Your task to perform on an android device: open sync settings in chrome Image 0: 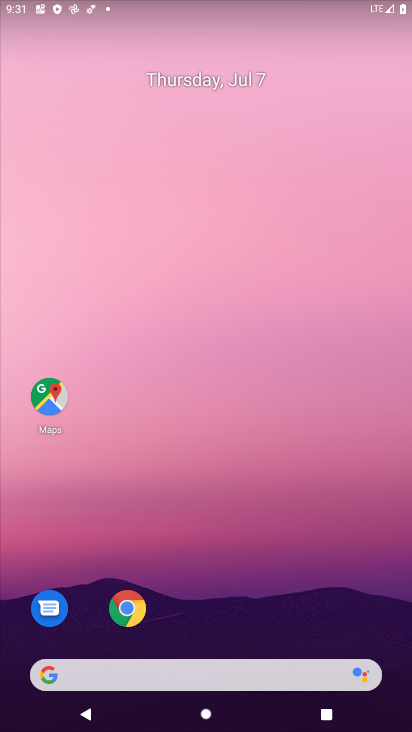
Step 0: drag from (220, 603) to (239, 208)
Your task to perform on an android device: open sync settings in chrome Image 1: 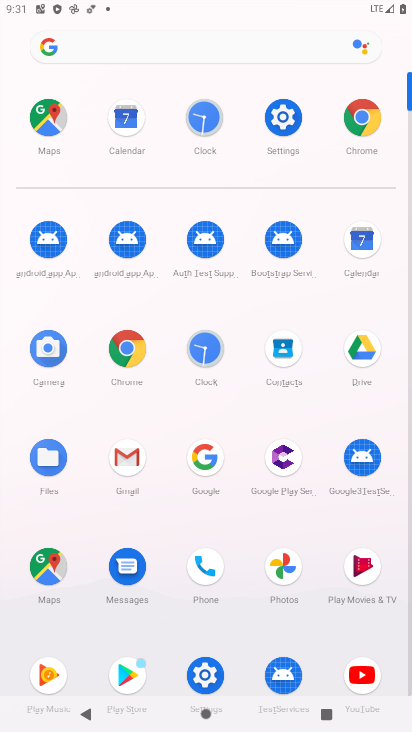
Step 1: click (126, 343)
Your task to perform on an android device: open sync settings in chrome Image 2: 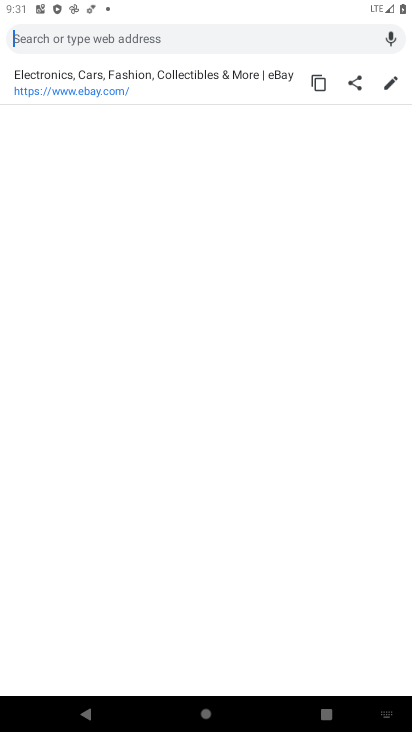
Step 2: press back button
Your task to perform on an android device: open sync settings in chrome Image 3: 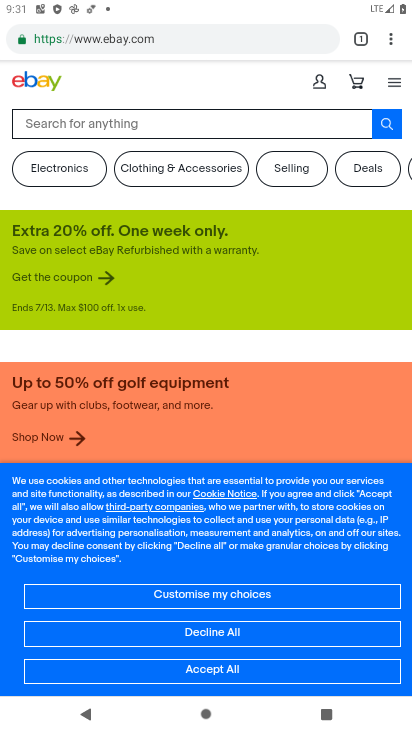
Step 3: click (385, 36)
Your task to perform on an android device: open sync settings in chrome Image 4: 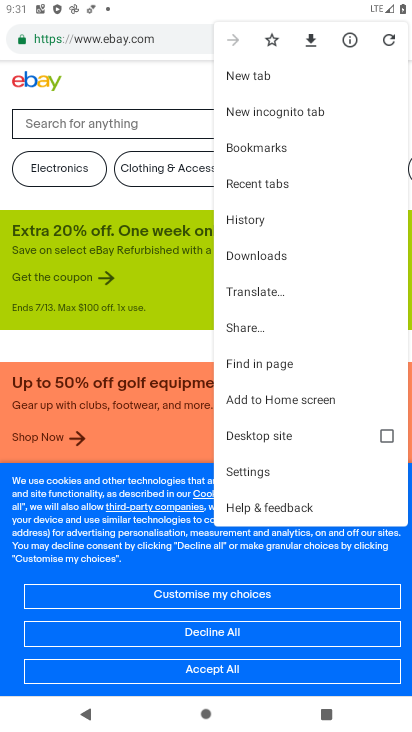
Step 4: click (282, 465)
Your task to perform on an android device: open sync settings in chrome Image 5: 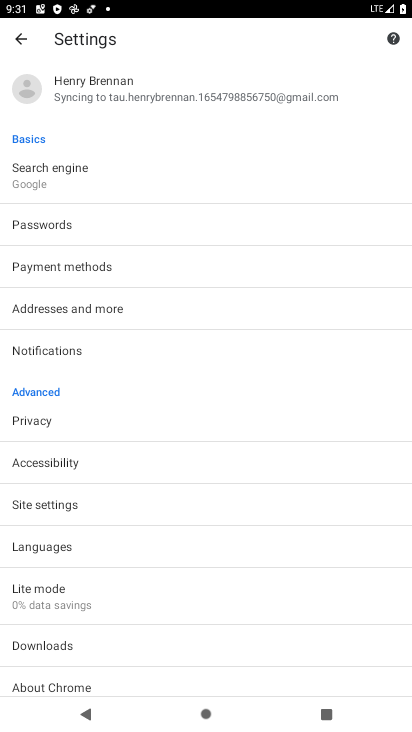
Step 5: click (40, 502)
Your task to perform on an android device: open sync settings in chrome Image 6: 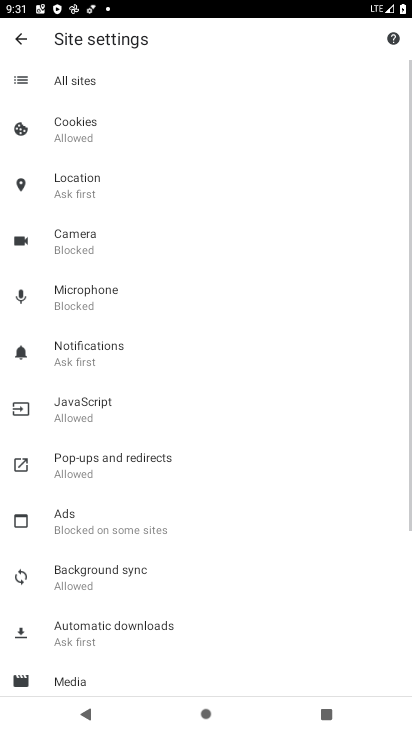
Step 6: click (116, 574)
Your task to perform on an android device: open sync settings in chrome Image 7: 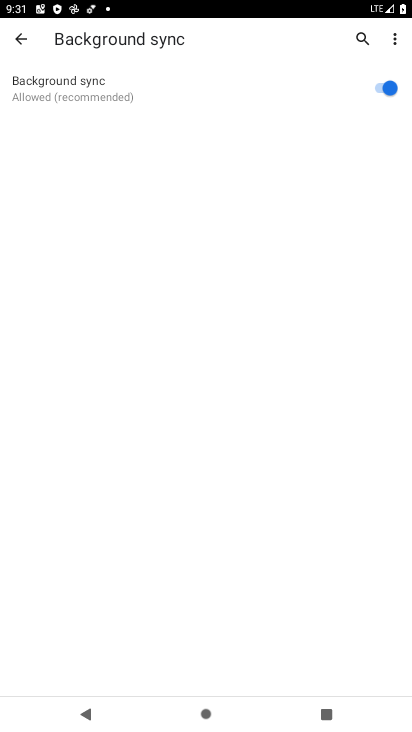
Step 7: task complete